Your task to perform on an android device: Check the news Image 0: 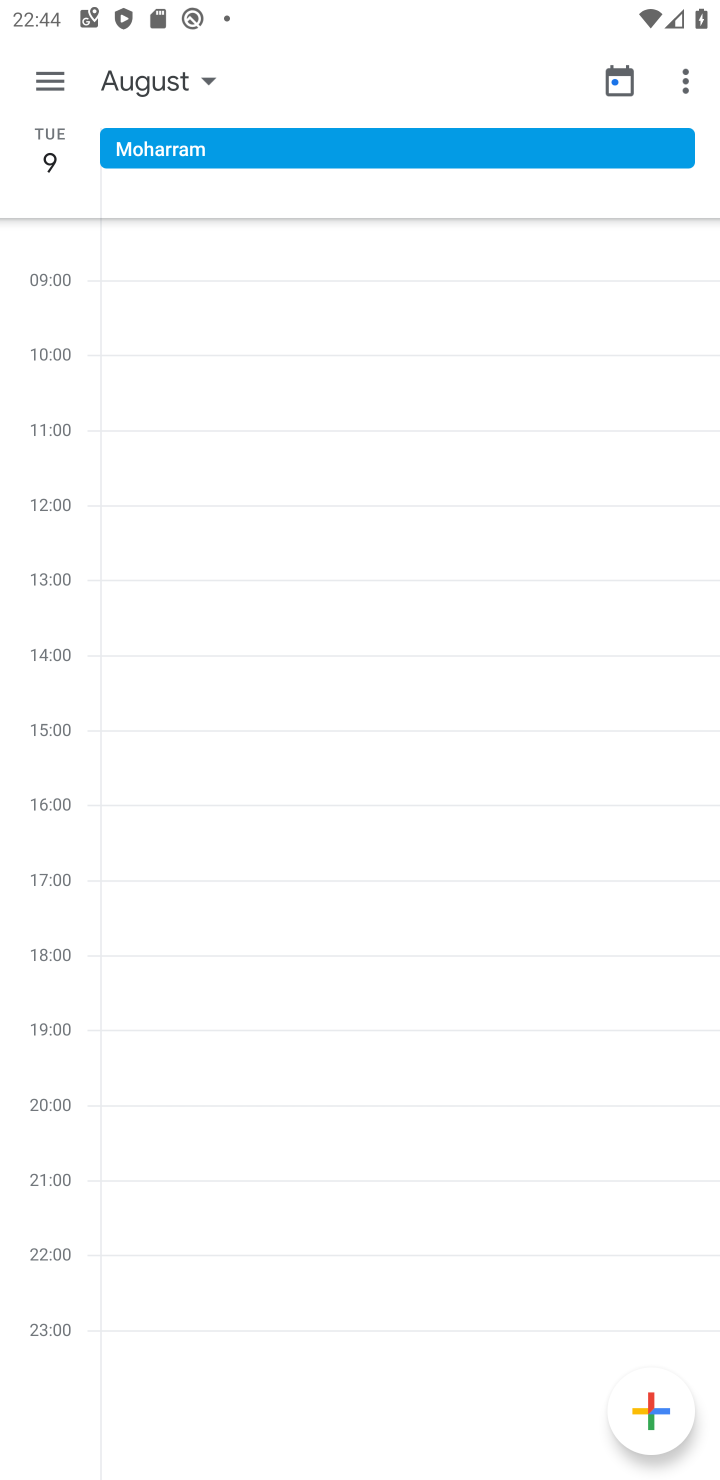
Step 0: press home button
Your task to perform on an android device: Check the news Image 1: 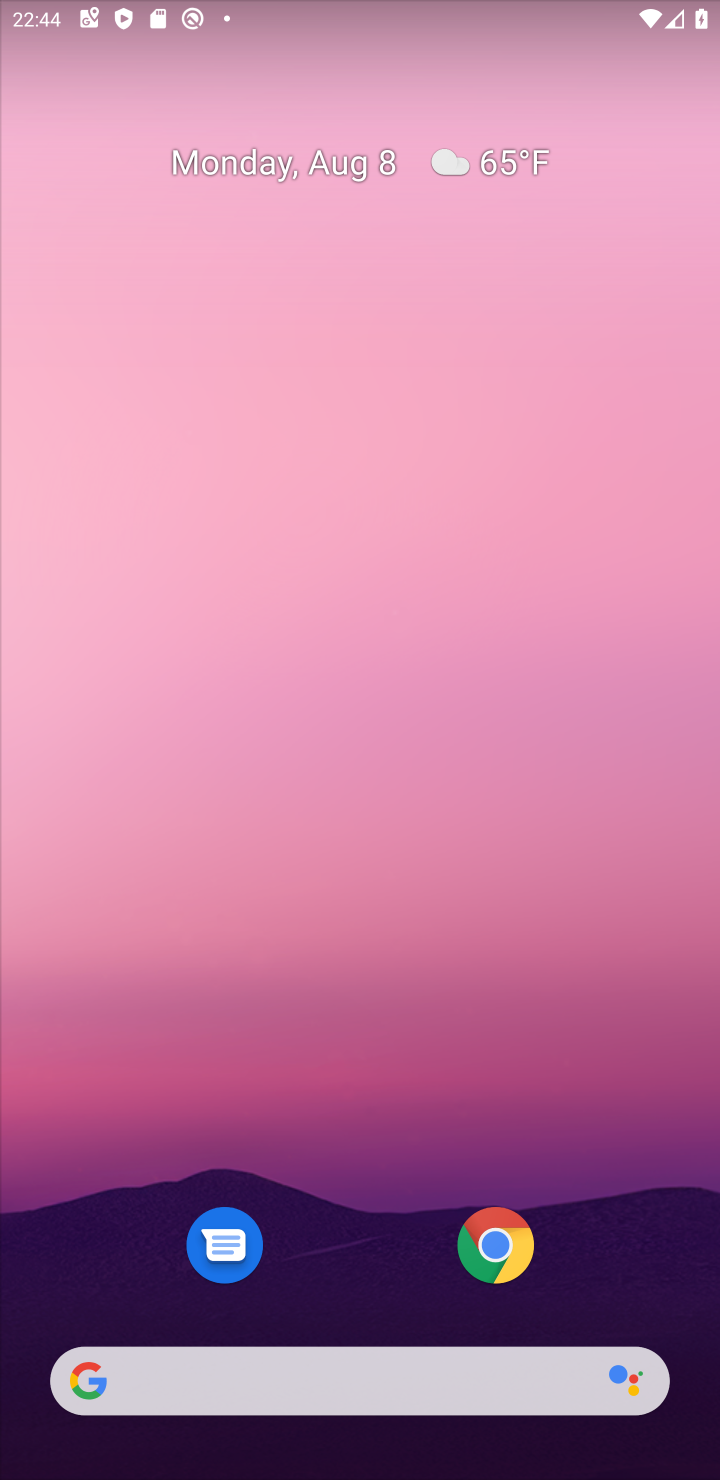
Step 1: drag from (15, 654) to (700, 752)
Your task to perform on an android device: Check the news Image 2: 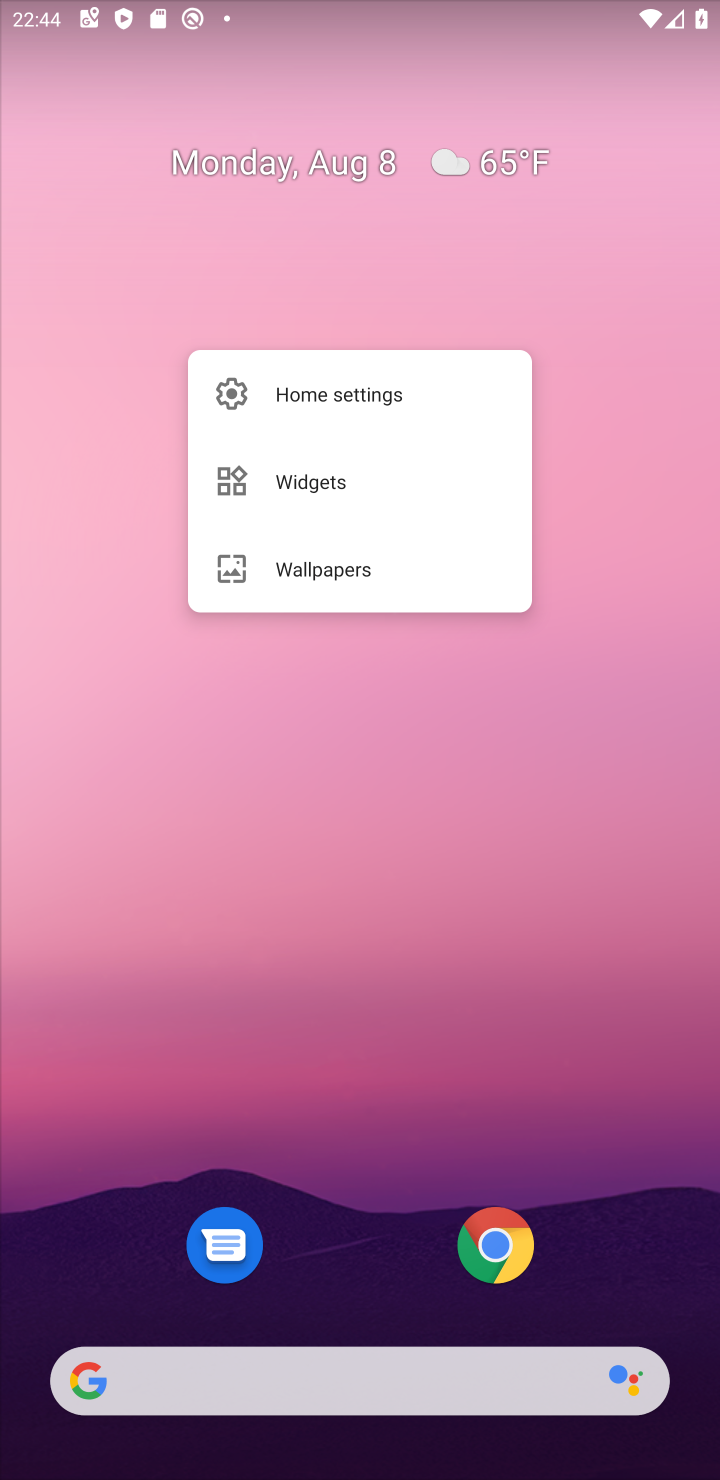
Step 2: click (363, 771)
Your task to perform on an android device: Check the news Image 3: 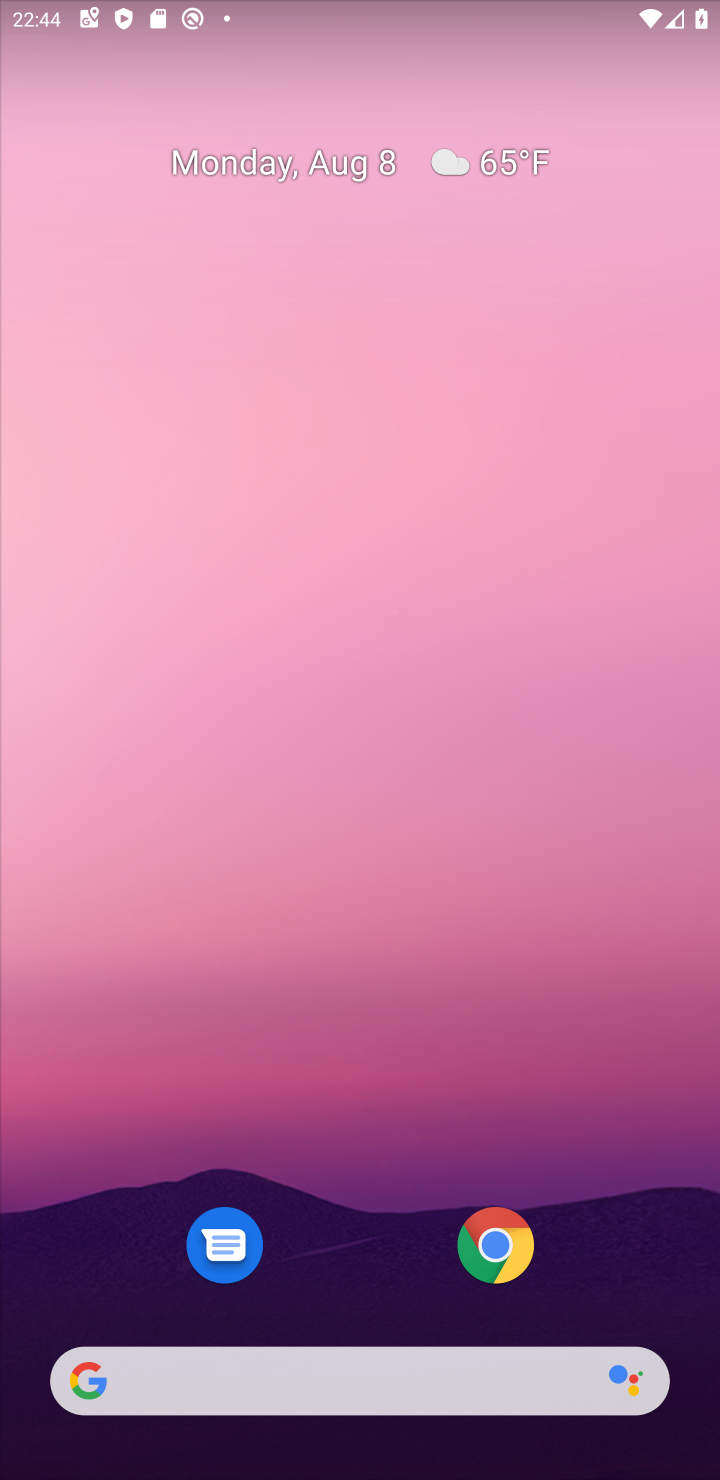
Step 3: click (313, 1361)
Your task to perform on an android device: Check the news Image 4: 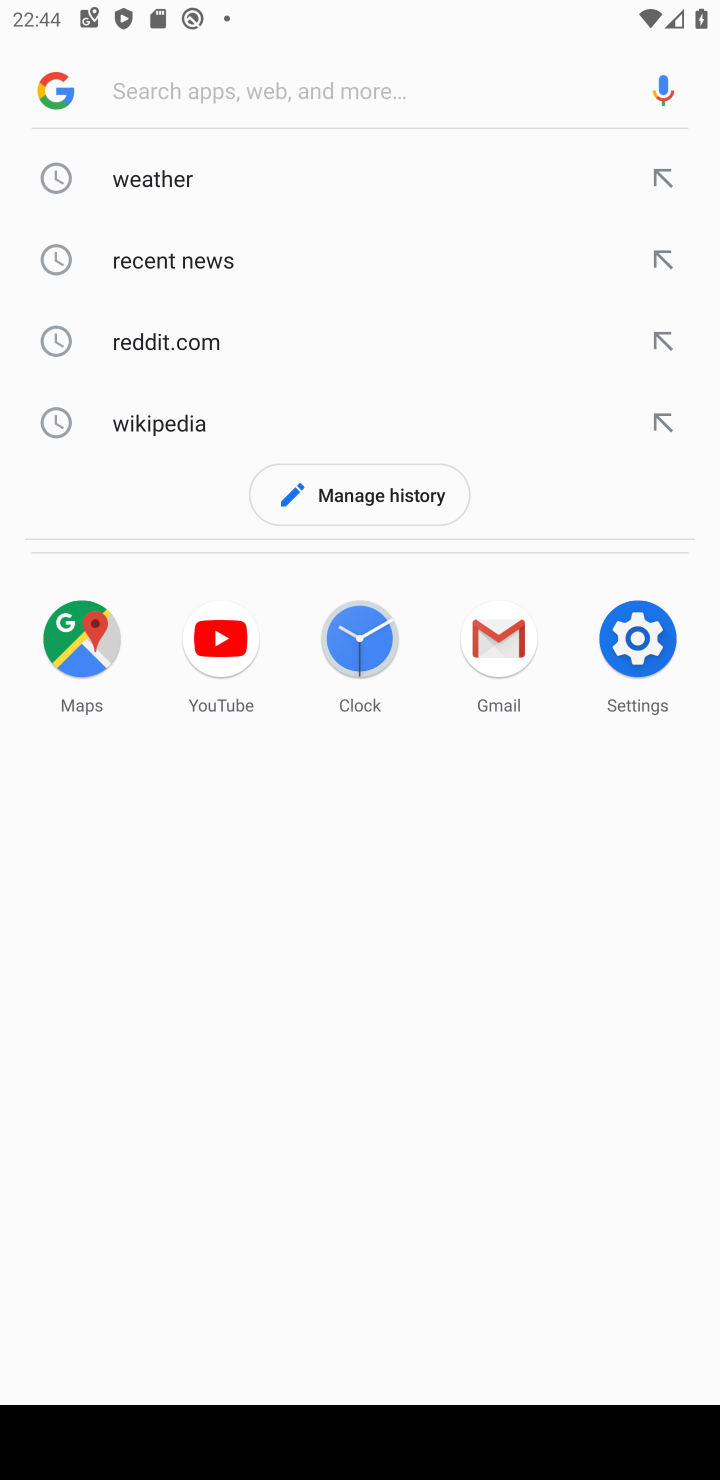
Step 4: click (189, 255)
Your task to perform on an android device: Check the news Image 5: 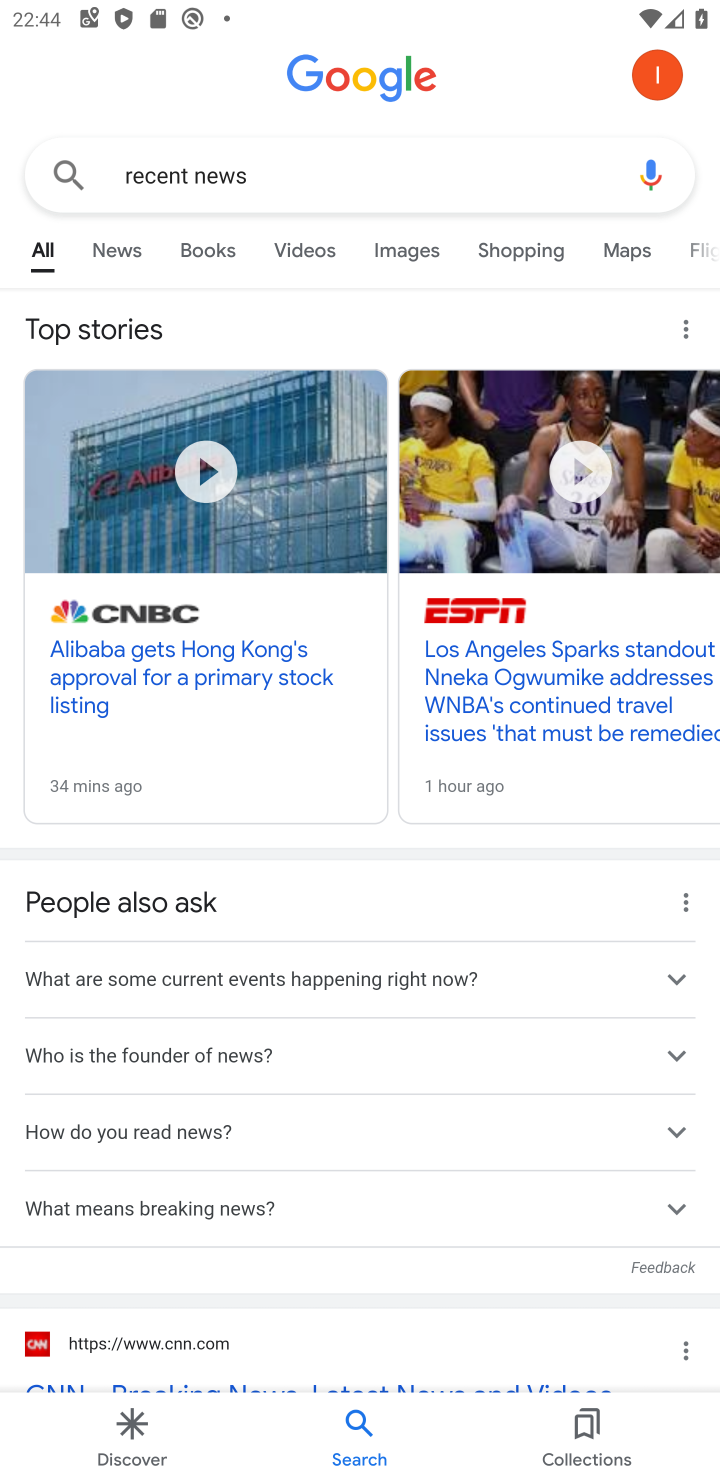
Step 5: drag from (345, 1100) to (332, 738)
Your task to perform on an android device: Check the news Image 6: 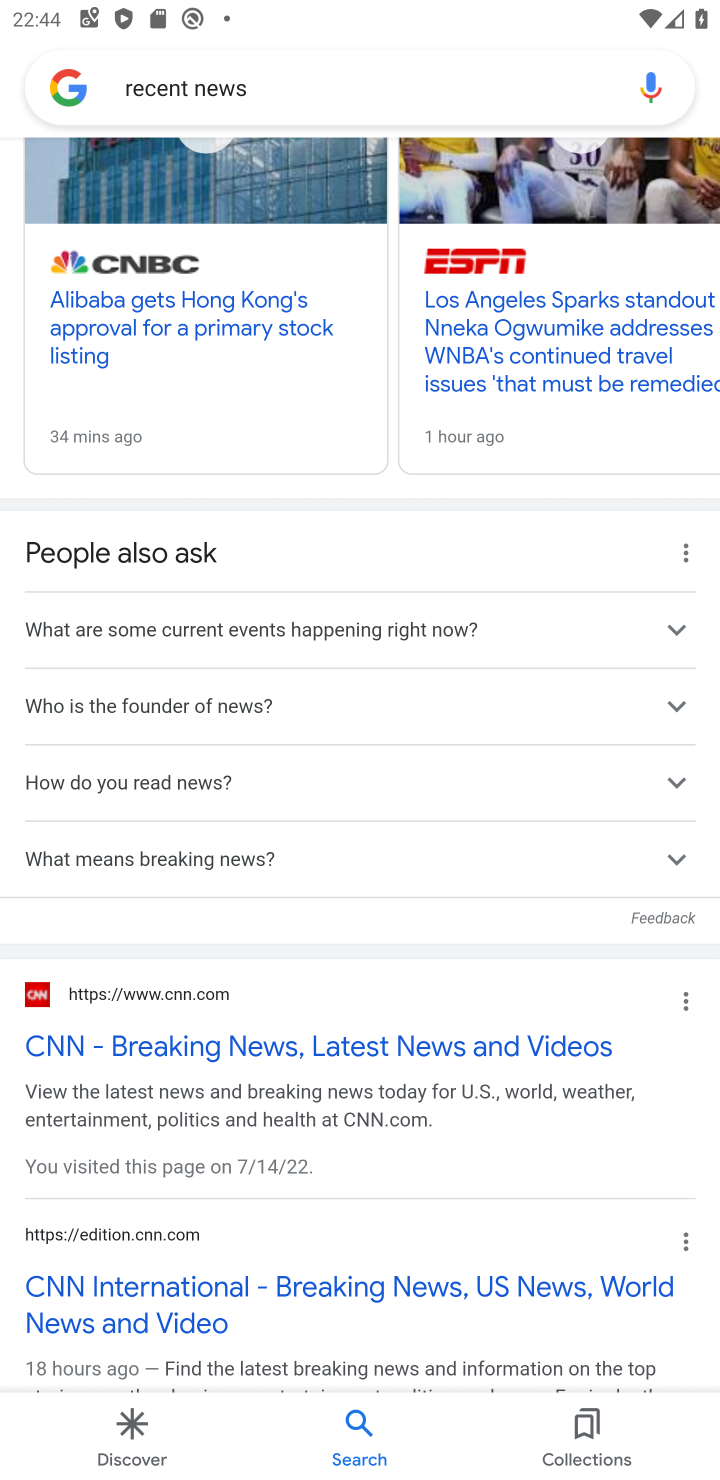
Step 6: click (236, 1040)
Your task to perform on an android device: Check the news Image 7: 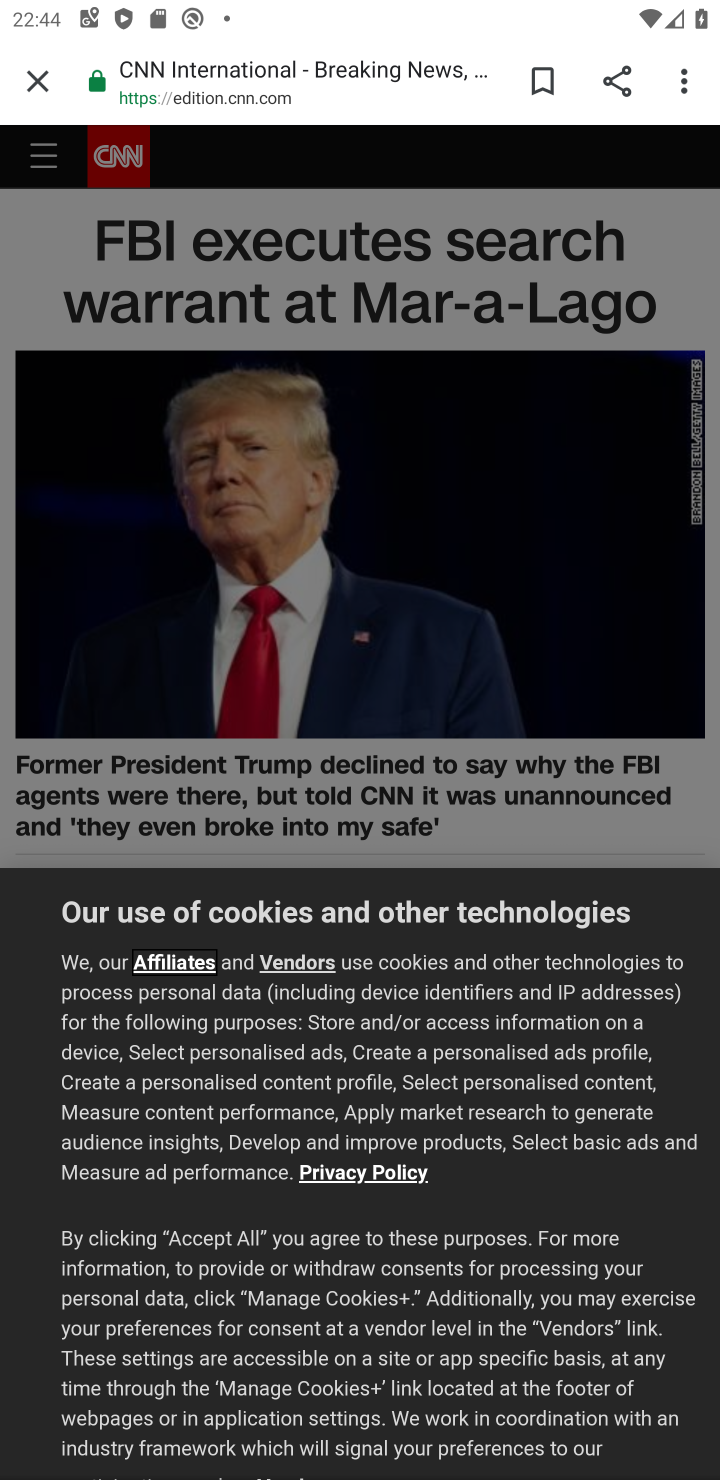
Step 7: task complete